Your task to perform on an android device: open app "Cash App" (install if not already installed) and go to login screen Image 0: 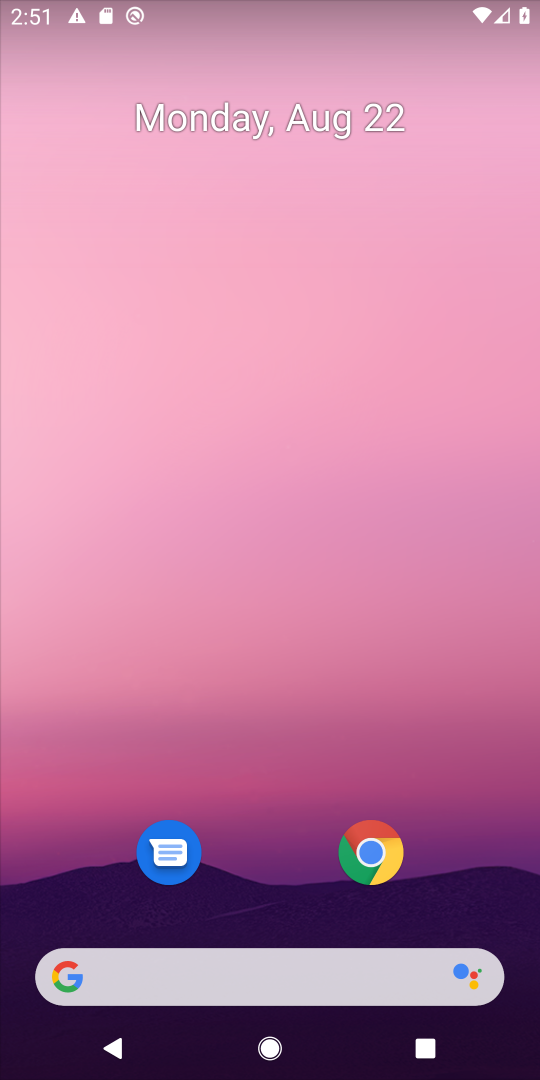
Step 0: drag from (309, 884) to (344, 44)
Your task to perform on an android device: open app "Cash App" (install if not already installed) and go to login screen Image 1: 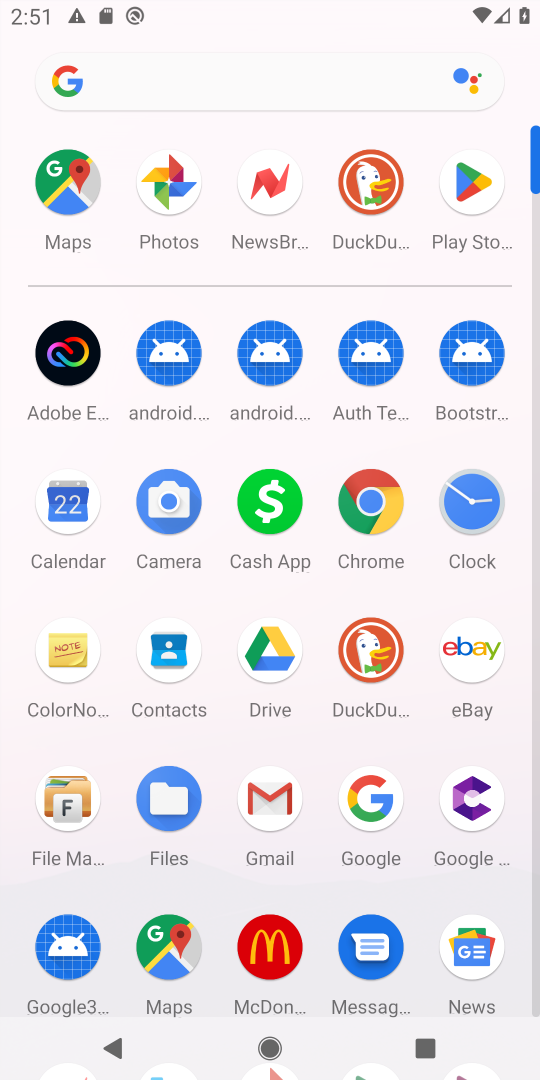
Step 1: click (285, 503)
Your task to perform on an android device: open app "Cash App" (install if not already installed) and go to login screen Image 2: 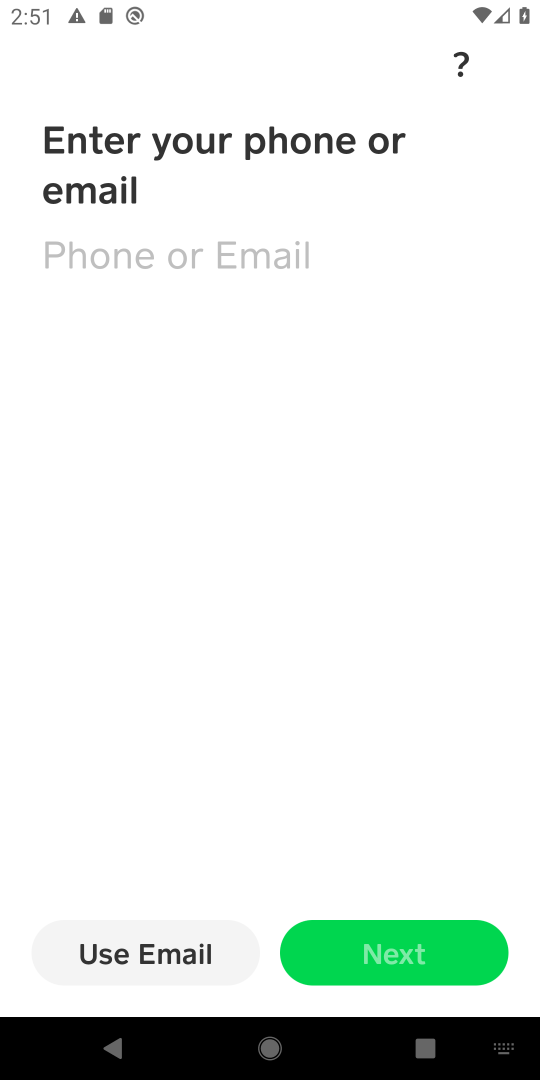
Step 2: task complete